Your task to perform on an android device: turn smart compose on in the gmail app Image 0: 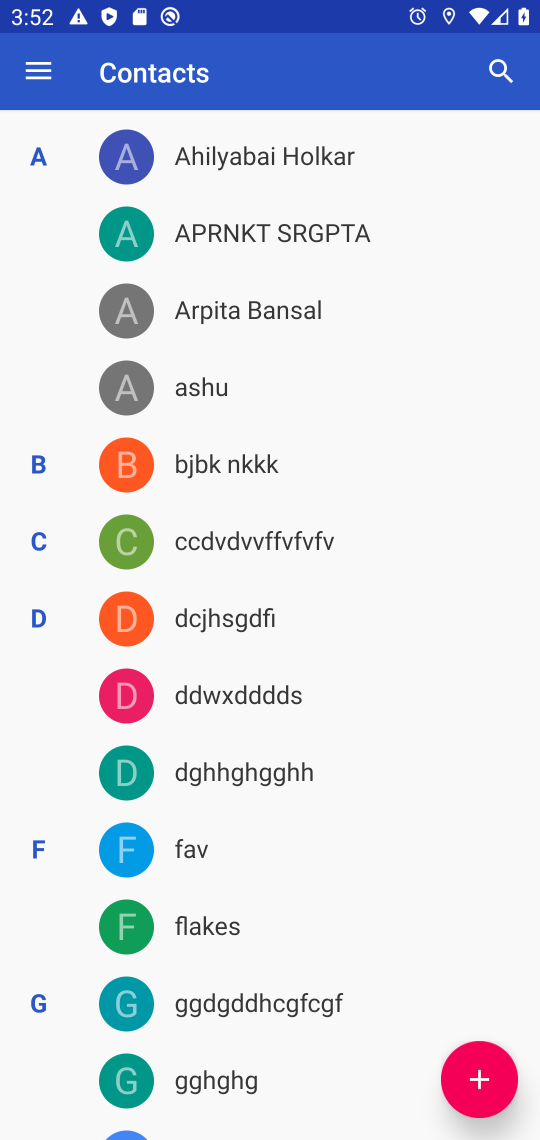
Step 0: press home button
Your task to perform on an android device: turn smart compose on in the gmail app Image 1: 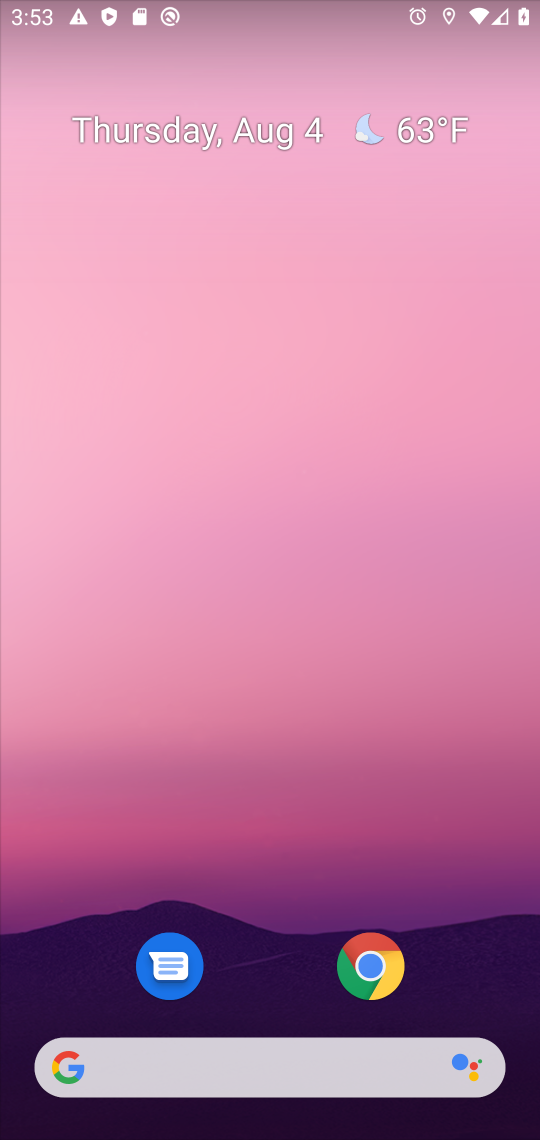
Step 1: drag from (275, 1004) to (274, 219)
Your task to perform on an android device: turn smart compose on in the gmail app Image 2: 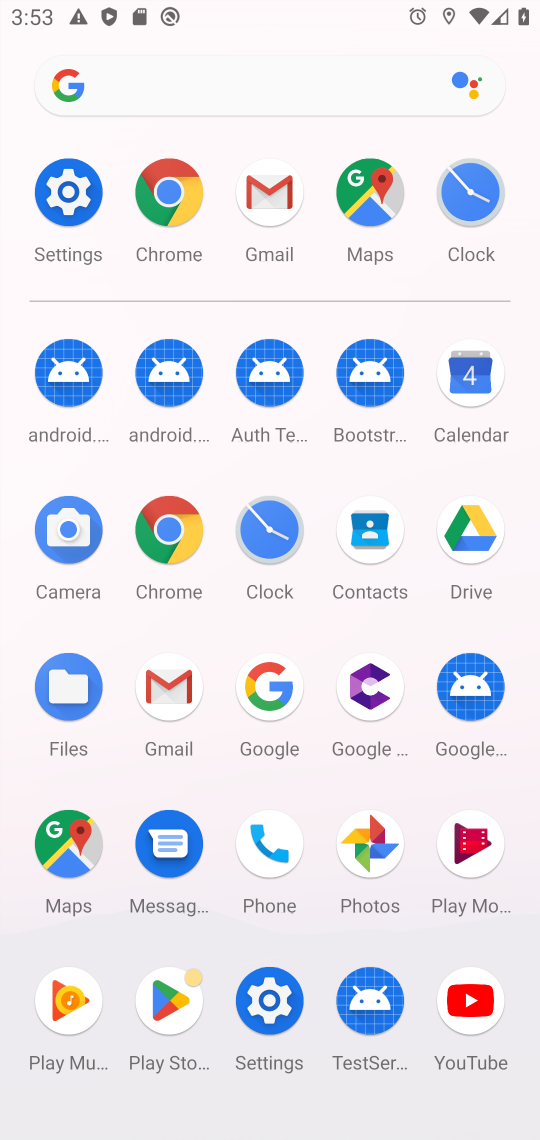
Step 2: click (277, 198)
Your task to perform on an android device: turn smart compose on in the gmail app Image 3: 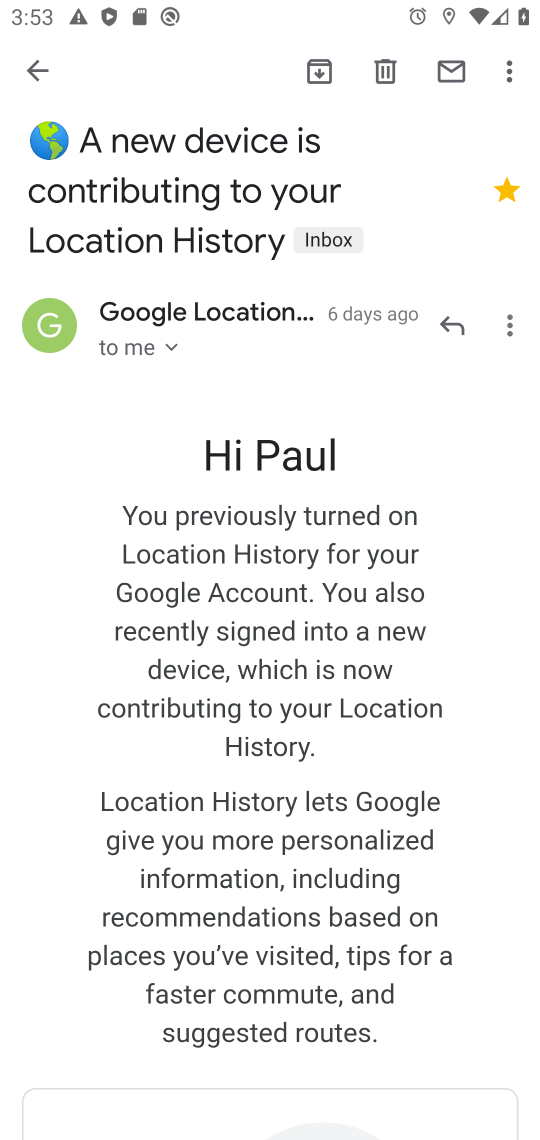
Step 3: click (39, 63)
Your task to perform on an android device: turn smart compose on in the gmail app Image 4: 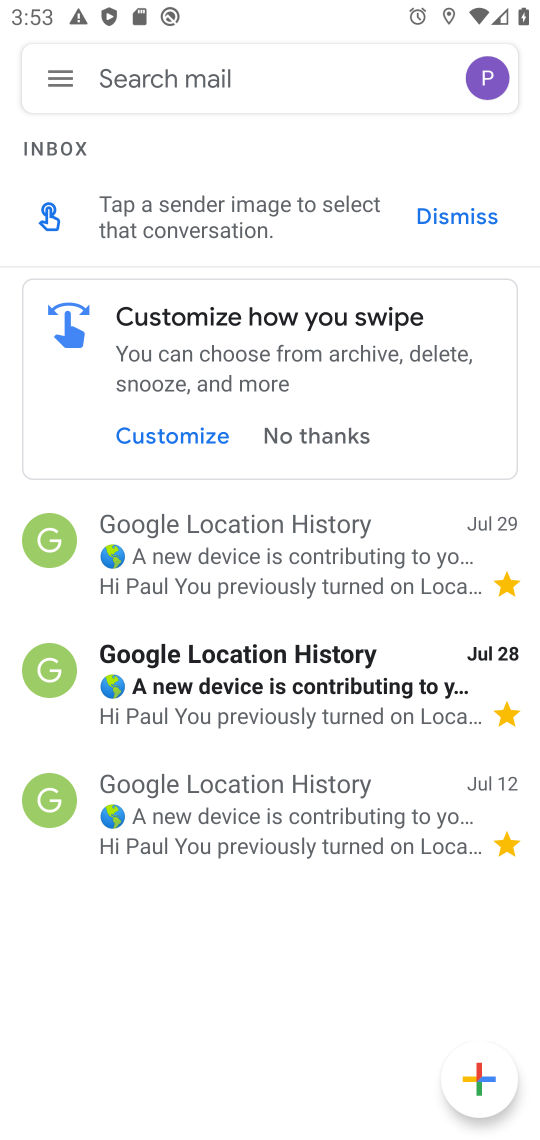
Step 4: click (62, 79)
Your task to perform on an android device: turn smart compose on in the gmail app Image 5: 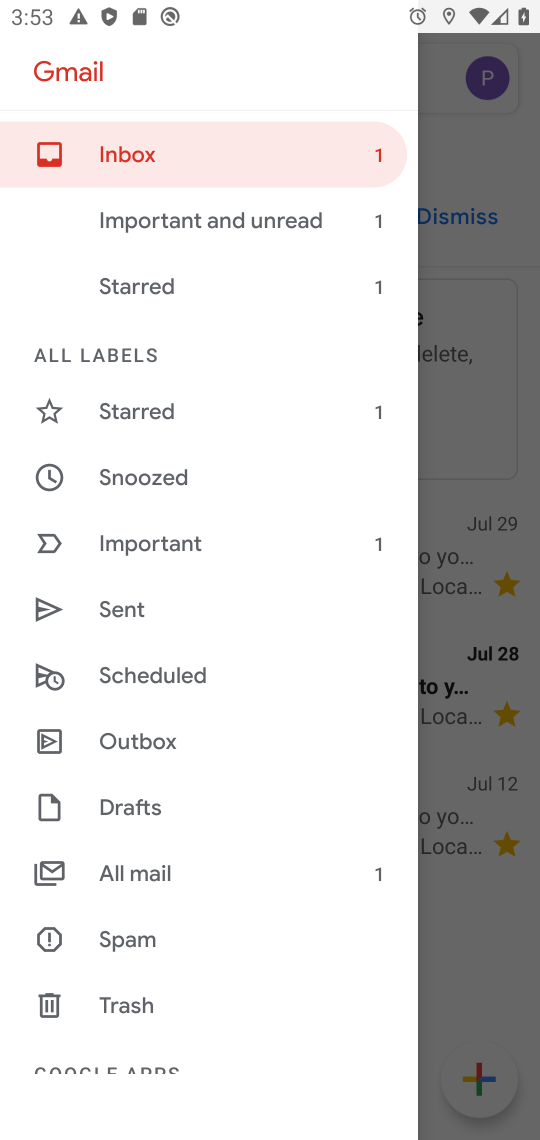
Step 5: drag from (295, 873) to (262, 342)
Your task to perform on an android device: turn smart compose on in the gmail app Image 6: 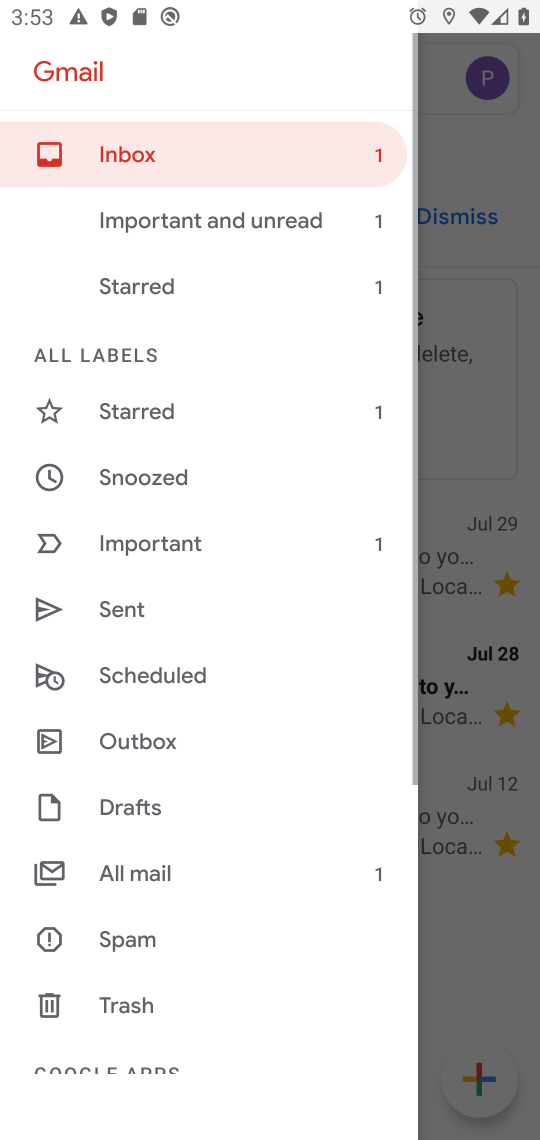
Step 6: drag from (311, 924) to (264, 34)
Your task to perform on an android device: turn smart compose on in the gmail app Image 7: 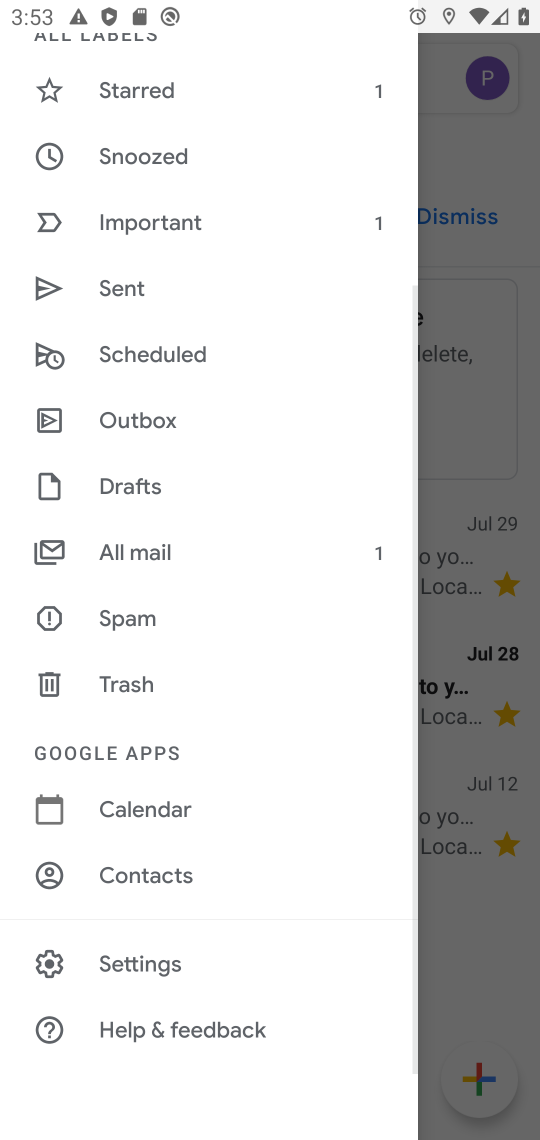
Step 7: click (134, 956)
Your task to perform on an android device: turn smart compose on in the gmail app Image 8: 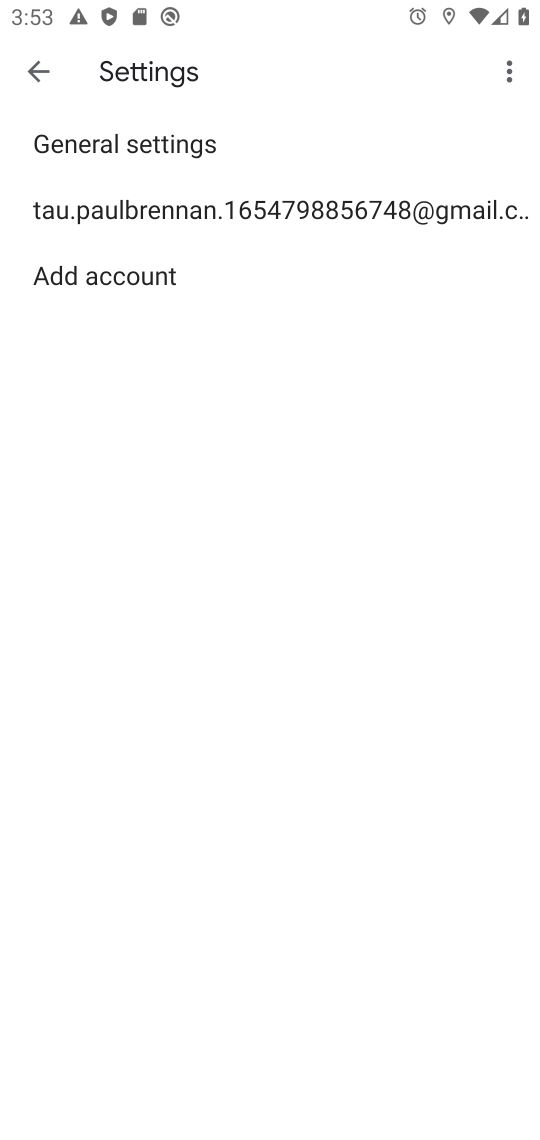
Step 8: click (225, 205)
Your task to perform on an android device: turn smart compose on in the gmail app Image 9: 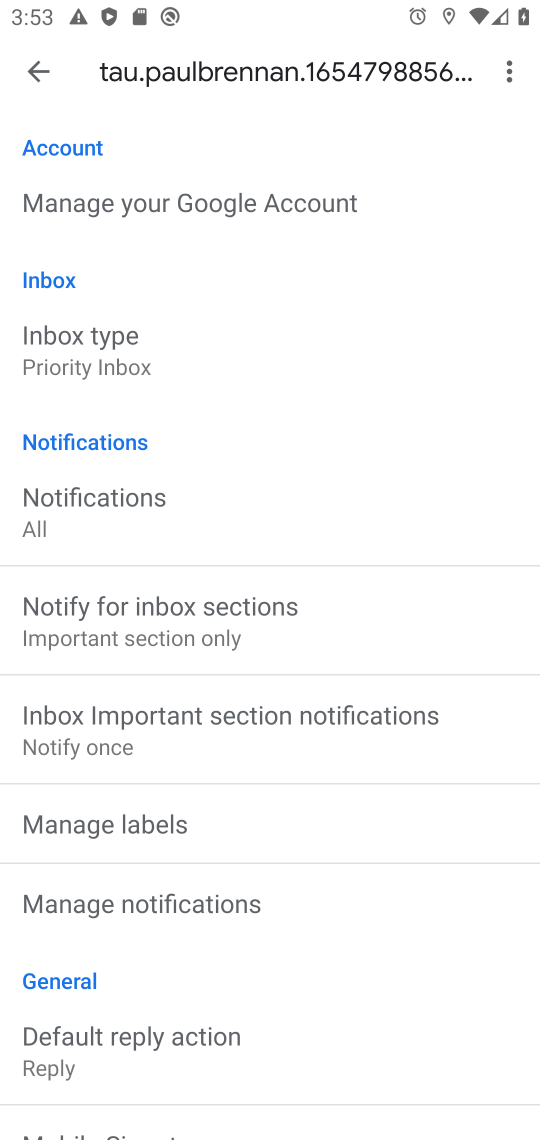
Step 9: task complete